Your task to perform on an android device: Is it going to rain this weekend? Image 0: 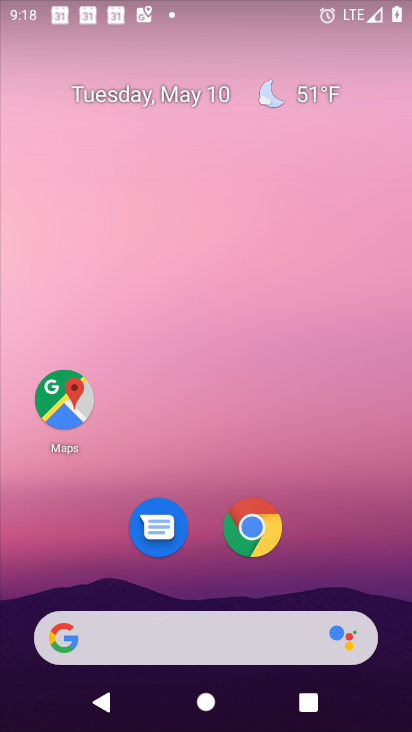
Step 0: drag from (213, 594) to (138, 53)
Your task to perform on an android device: Is it going to rain this weekend? Image 1: 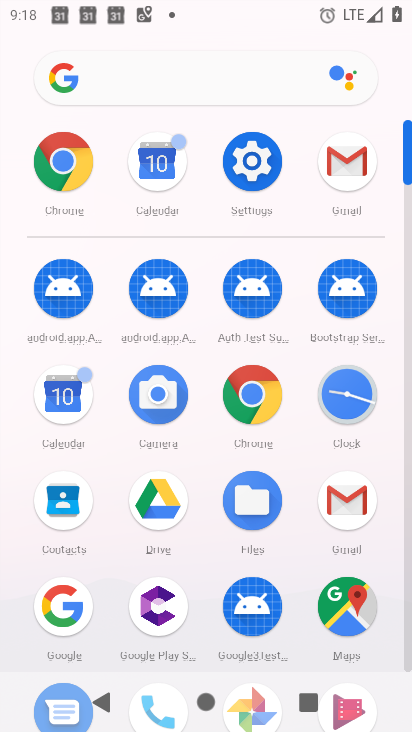
Step 1: click (58, 613)
Your task to perform on an android device: Is it going to rain this weekend? Image 2: 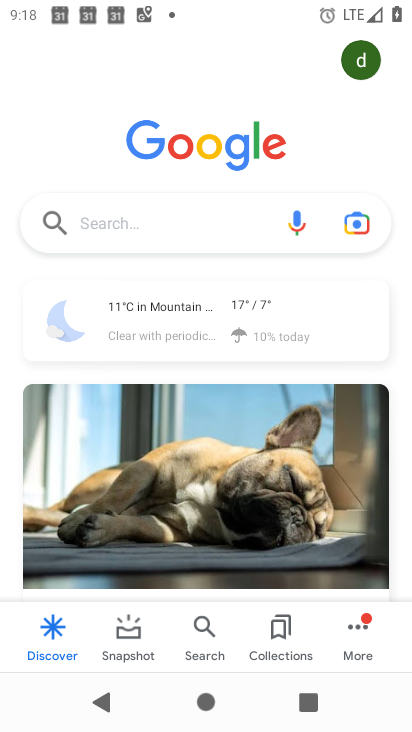
Step 2: click (117, 310)
Your task to perform on an android device: Is it going to rain this weekend? Image 3: 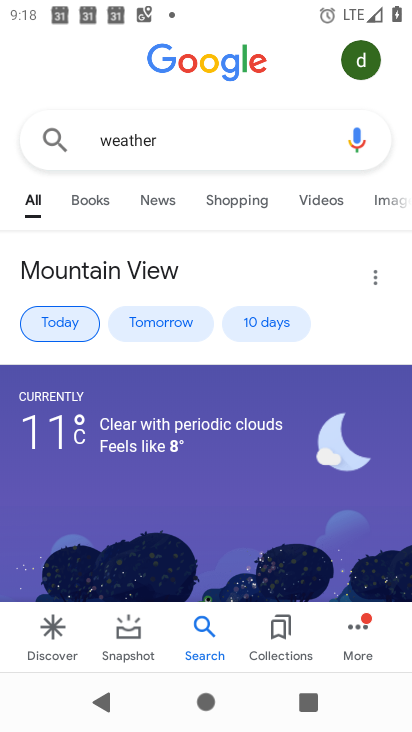
Step 3: click (270, 326)
Your task to perform on an android device: Is it going to rain this weekend? Image 4: 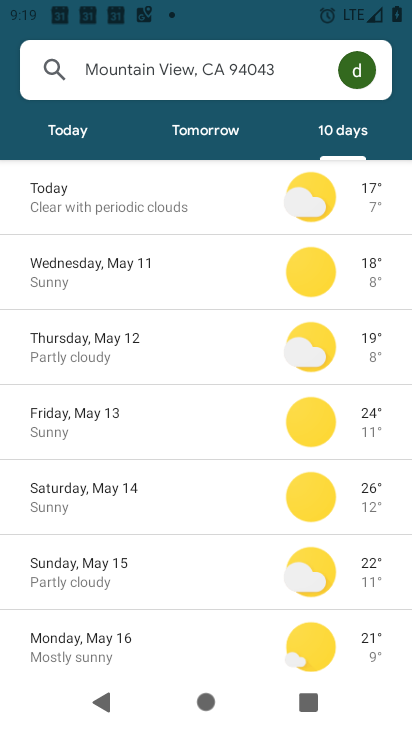
Step 4: task complete